Your task to perform on an android device: open the mobile data screen to see how much data has been used Image 0: 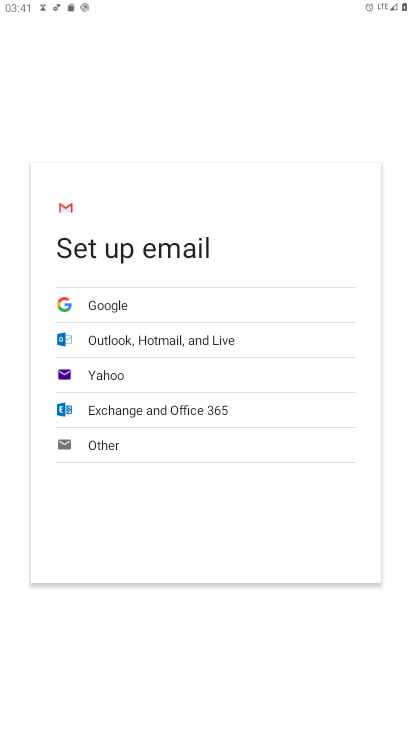
Step 0: press home button
Your task to perform on an android device: open the mobile data screen to see how much data has been used Image 1: 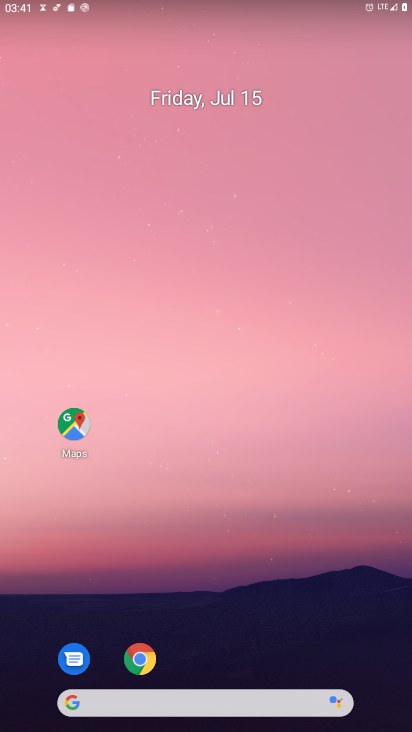
Step 1: drag from (235, 634) to (291, 109)
Your task to perform on an android device: open the mobile data screen to see how much data has been used Image 2: 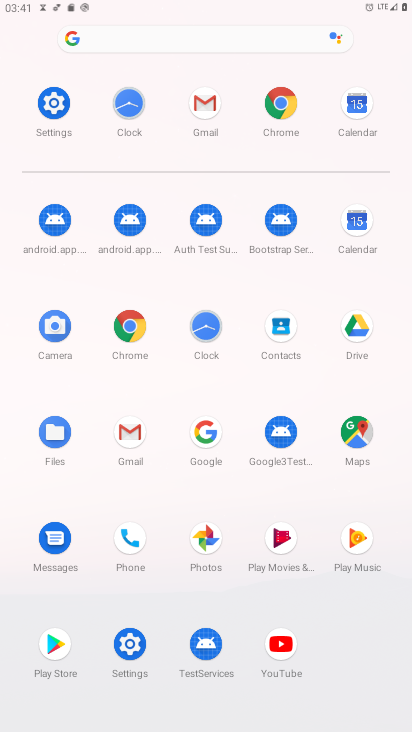
Step 2: click (57, 94)
Your task to perform on an android device: open the mobile data screen to see how much data has been used Image 3: 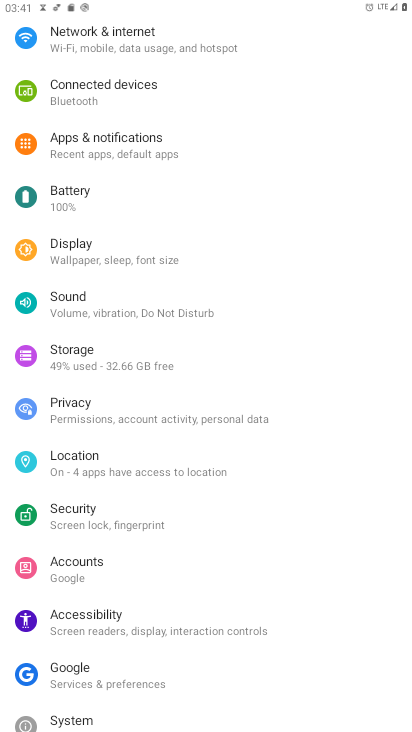
Step 3: click (115, 34)
Your task to perform on an android device: open the mobile data screen to see how much data has been used Image 4: 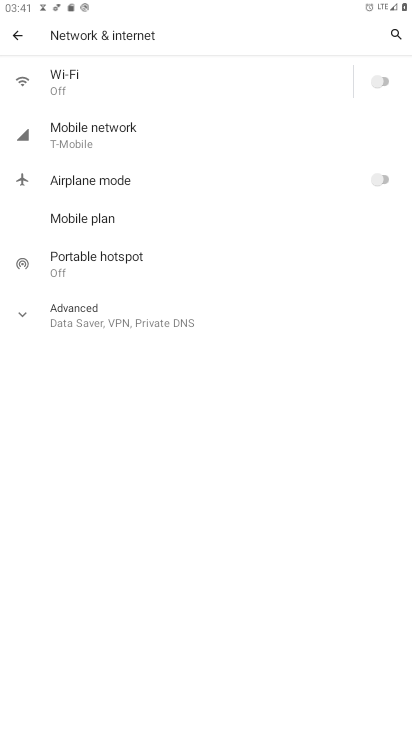
Step 4: click (108, 137)
Your task to perform on an android device: open the mobile data screen to see how much data has been used Image 5: 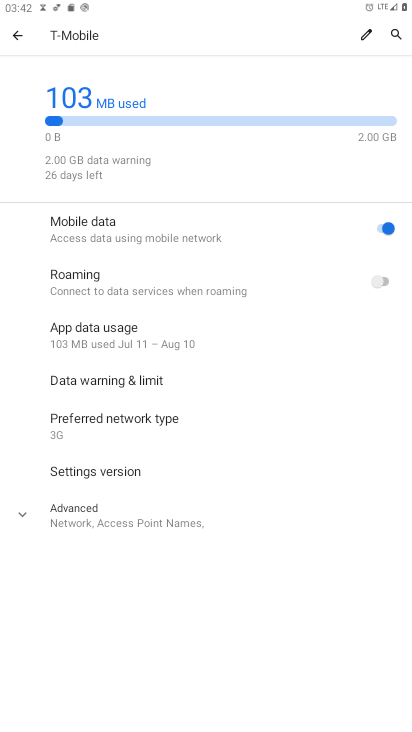
Step 5: task complete